Your task to perform on an android device: turn off priority inbox in the gmail app Image 0: 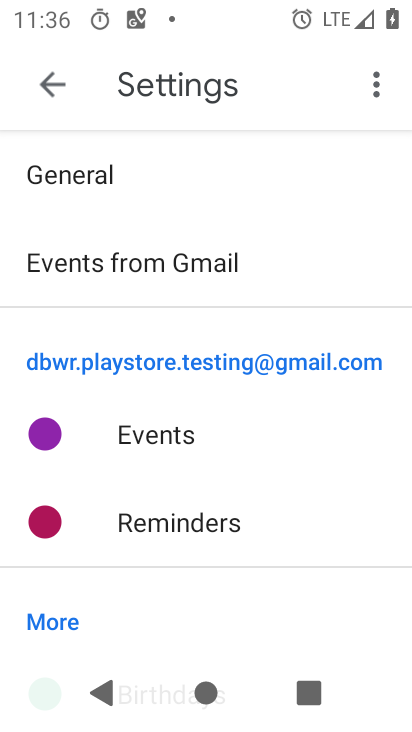
Step 0: press back button
Your task to perform on an android device: turn off priority inbox in the gmail app Image 1: 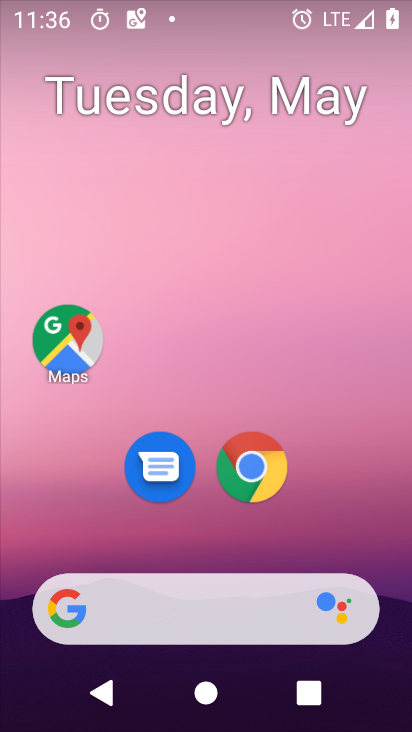
Step 1: drag from (398, 637) to (282, 53)
Your task to perform on an android device: turn off priority inbox in the gmail app Image 2: 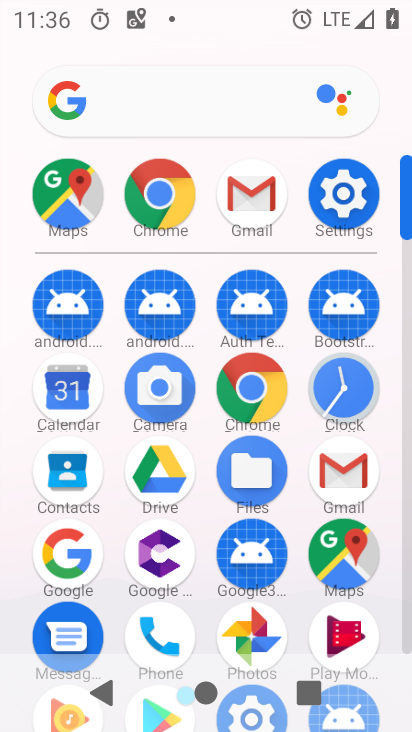
Step 2: drag from (4, 634) to (5, 227)
Your task to perform on an android device: turn off priority inbox in the gmail app Image 3: 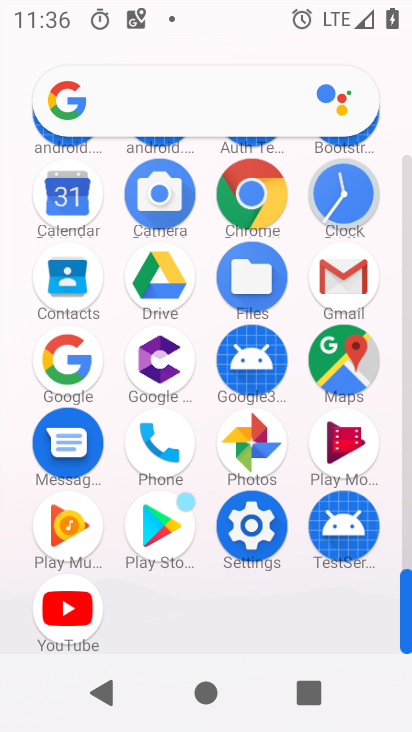
Step 3: click (346, 269)
Your task to perform on an android device: turn off priority inbox in the gmail app Image 4: 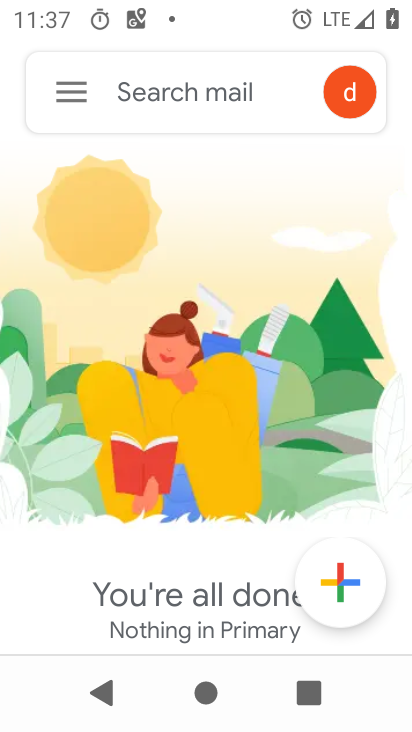
Step 4: click (63, 84)
Your task to perform on an android device: turn off priority inbox in the gmail app Image 5: 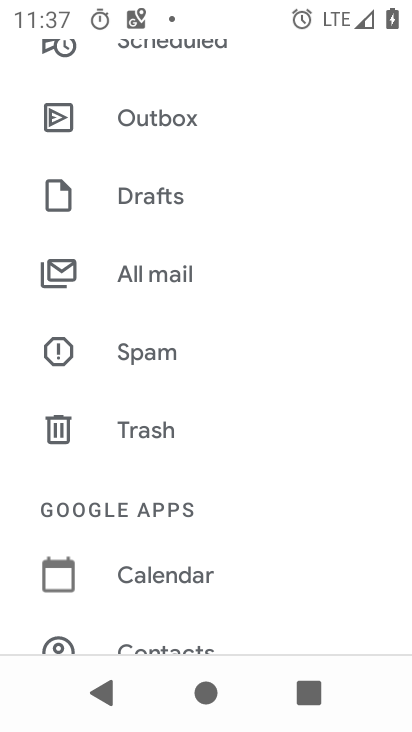
Step 5: drag from (200, 523) to (227, 156)
Your task to perform on an android device: turn off priority inbox in the gmail app Image 6: 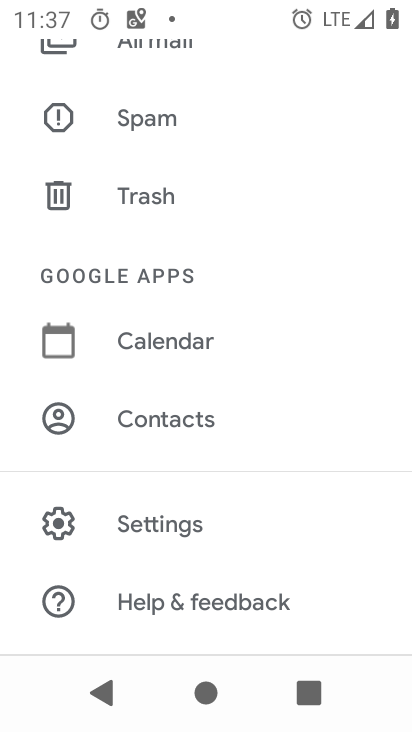
Step 6: click (131, 527)
Your task to perform on an android device: turn off priority inbox in the gmail app Image 7: 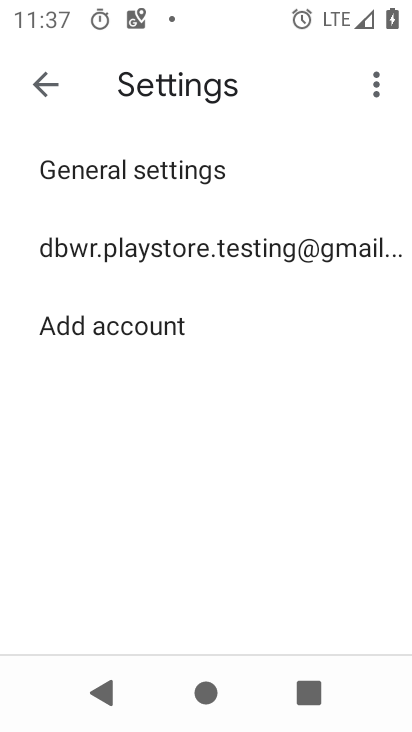
Step 7: click (232, 252)
Your task to perform on an android device: turn off priority inbox in the gmail app Image 8: 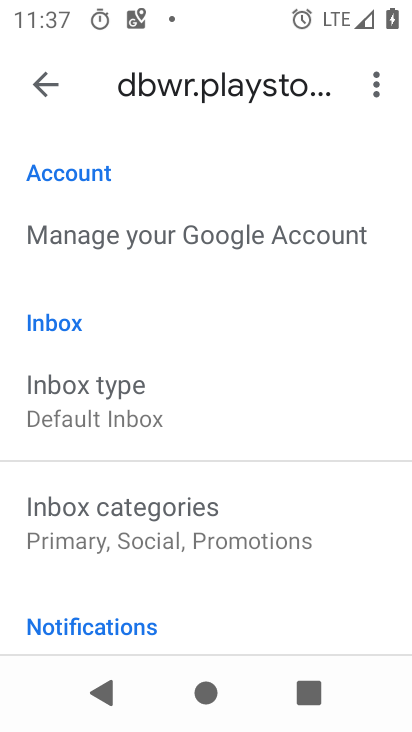
Step 8: drag from (278, 514) to (272, 178)
Your task to perform on an android device: turn off priority inbox in the gmail app Image 9: 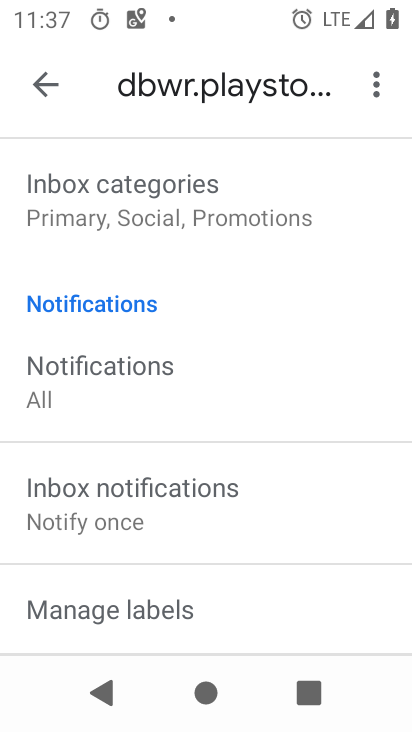
Step 9: drag from (263, 210) to (274, 504)
Your task to perform on an android device: turn off priority inbox in the gmail app Image 10: 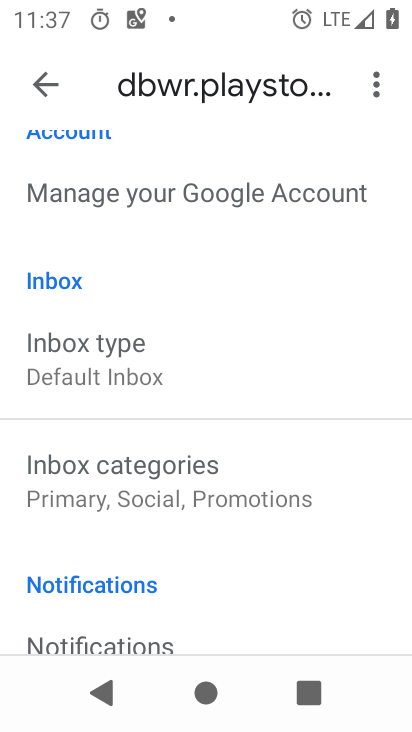
Step 10: click (160, 358)
Your task to perform on an android device: turn off priority inbox in the gmail app Image 11: 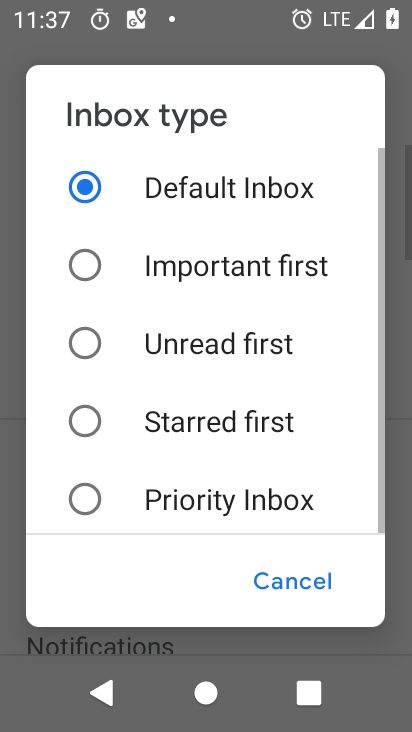
Step 11: click (215, 183)
Your task to perform on an android device: turn off priority inbox in the gmail app Image 12: 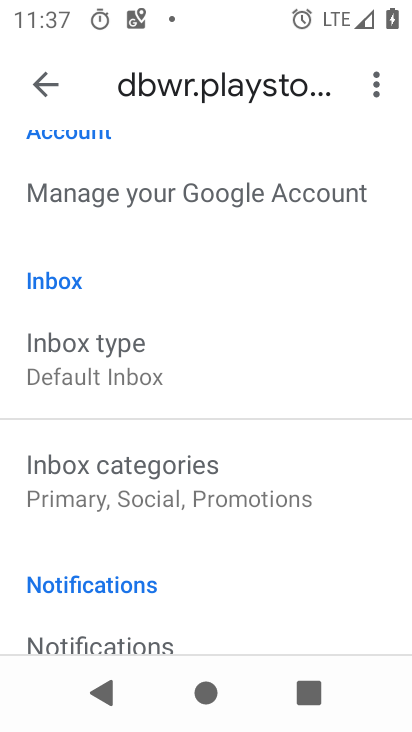
Step 12: click (204, 485)
Your task to perform on an android device: turn off priority inbox in the gmail app Image 13: 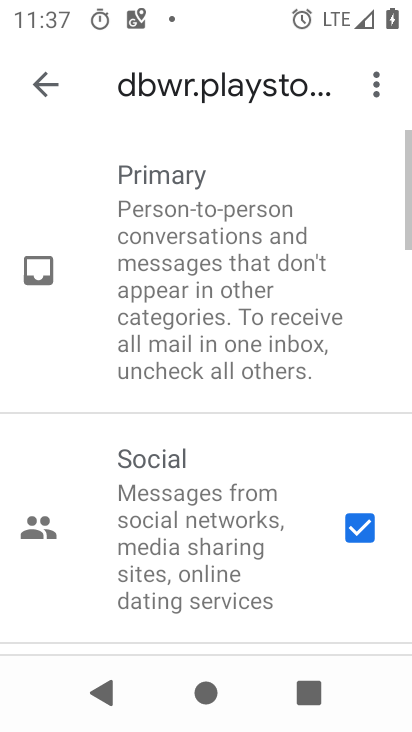
Step 13: drag from (219, 508) to (248, 156)
Your task to perform on an android device: turn off priority inbox in the gmail app Image 14: 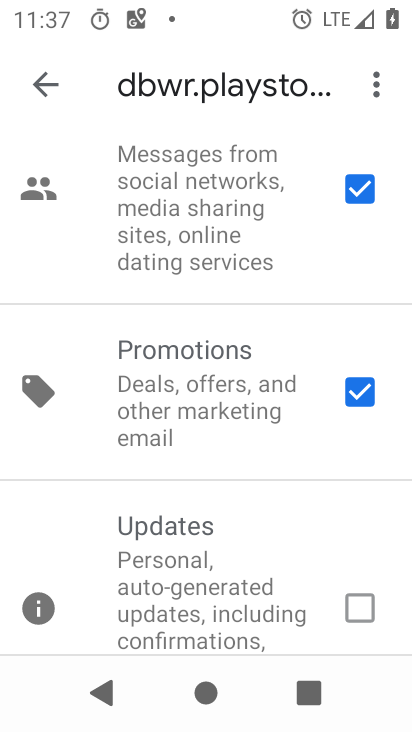
Step 14: click (348, 193)
Your task to perform on an android device: turn off priority inbox in the gmail app Image 15: 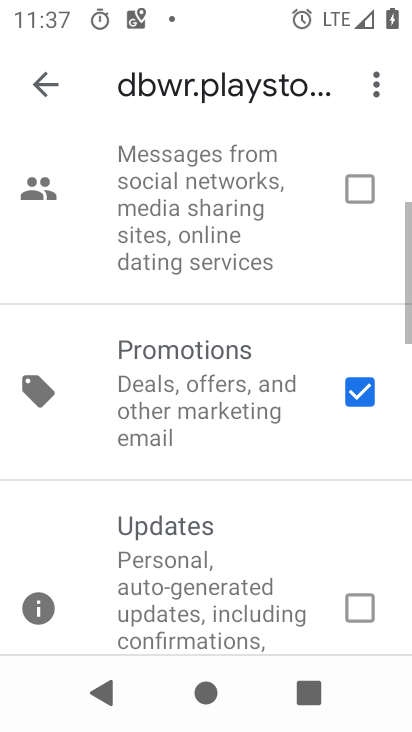
Step 15: click (346, 384)
Your task to perform on an android device: turn off priority inbox in the gmail app Image 16: 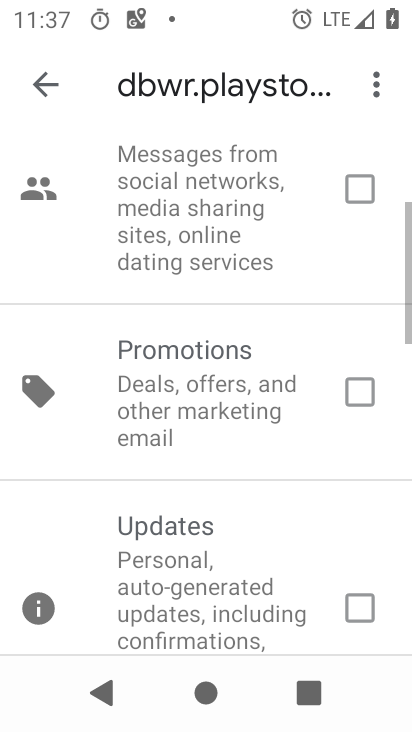
Step 16: click (49, 75)
Your task to perform on an android device: turn off priority inbox in the gmail app Image 17: 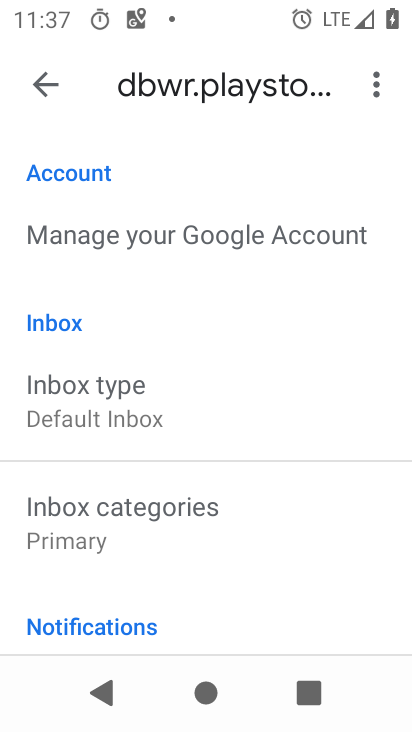
Step 17: task complete